Your task to perform on an android device: turn off sleep mode Image 0: 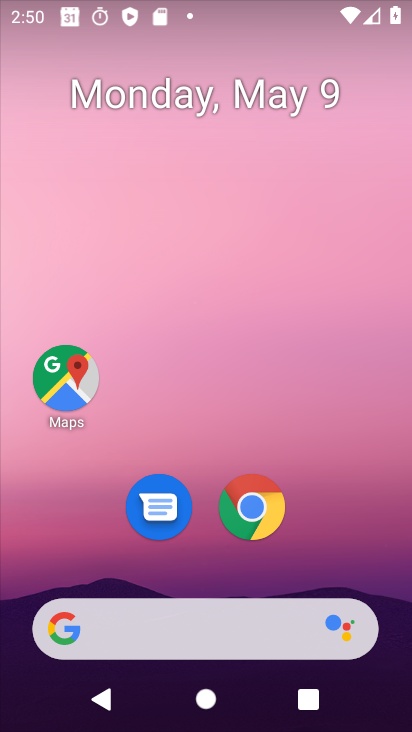
Step 0: drag from (192, 598) to (266, 52)
Your task to perform on an android device: turn off sleep mode Image 1: 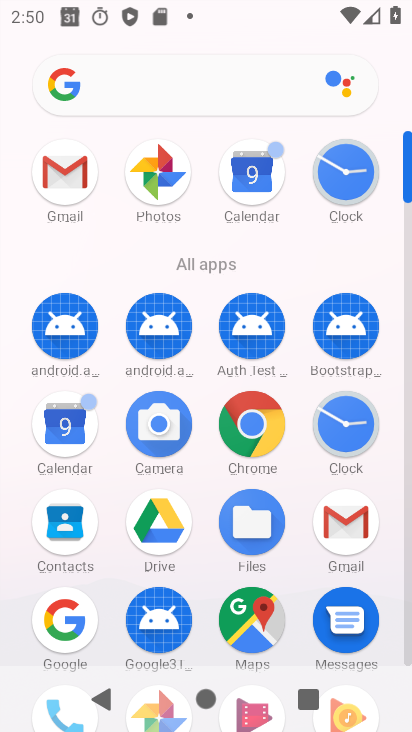
Step 1: drag from (224, 553) to (287, 112)
Your task to perform on an android device: turn off sleep mode Image 2: 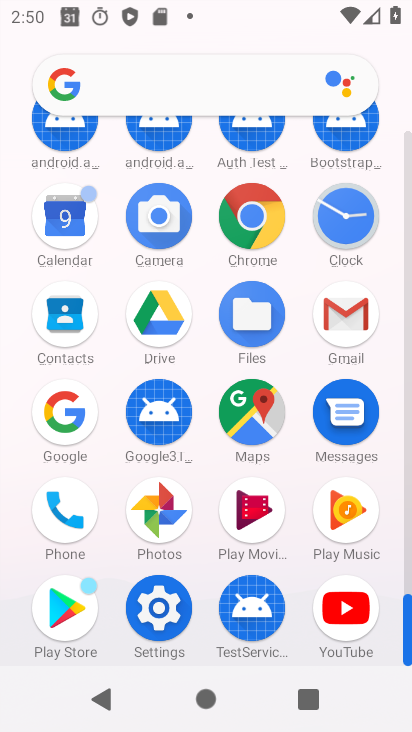
Step 2: click (153, 598)
Your task to perform on an android device: turn off sleep mode Image 3: 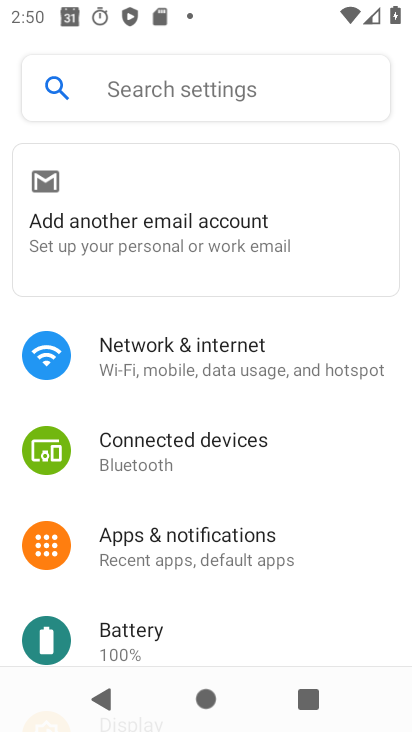
Step 3: drag from (174, 584) to (187, 421)
Your task to perform on an android device: turn off sleep mode Image 4: 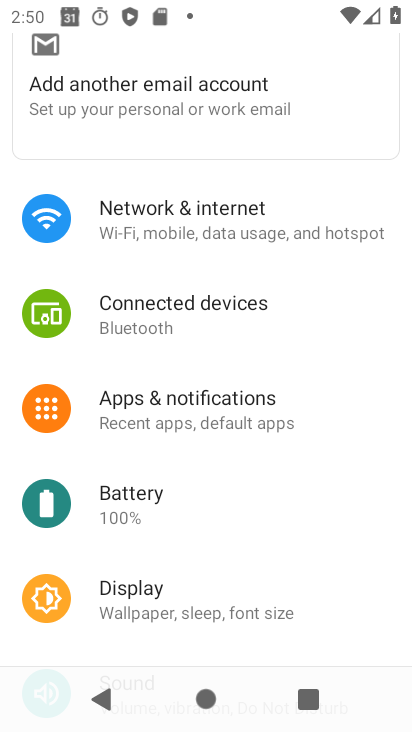
Step 4: click (157, 595)
Your task to perform on an android device: turn off sleep mode Image 5: 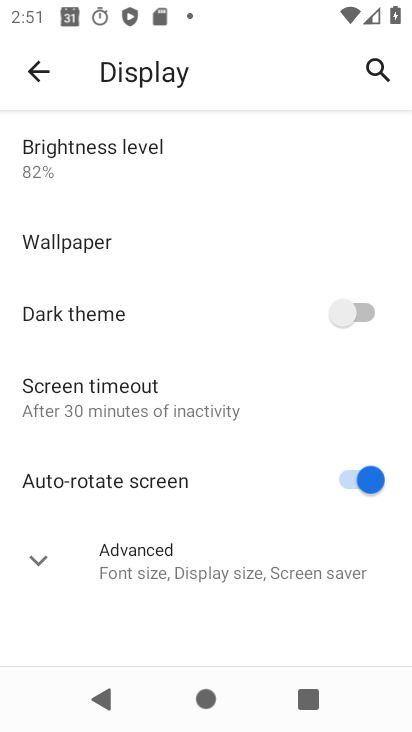
Step 5: click (155, 429)
Your task to perform on an android device: turn off sleep mode Image 6: 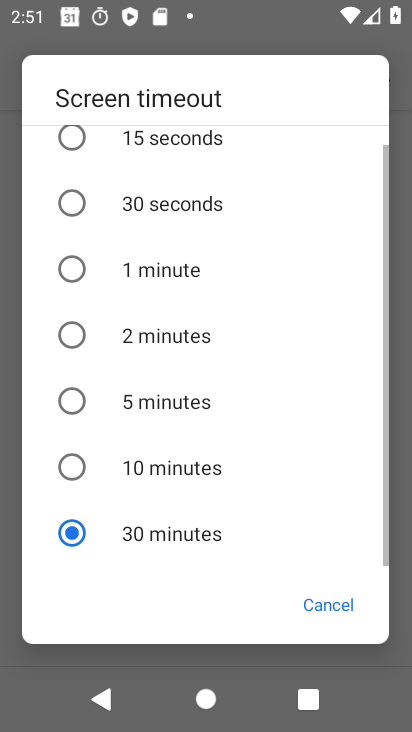
Step 6: task complete